Your task to perform on an android device: turn off data saver in the chrome app Image 0: 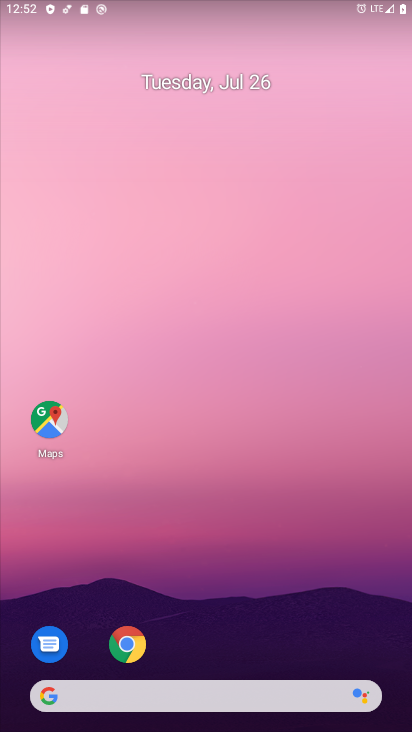
Step 0: click (126, 644)
Your task to perform on an android device: turn off data saver in the chrome app Image 1: 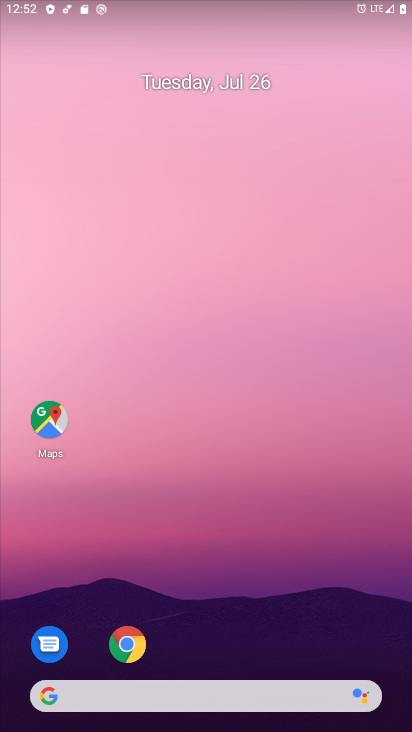
Step 1: click (126, 644)
Your task to perform on an android device: turn off data saver in the chrome app Image 2: 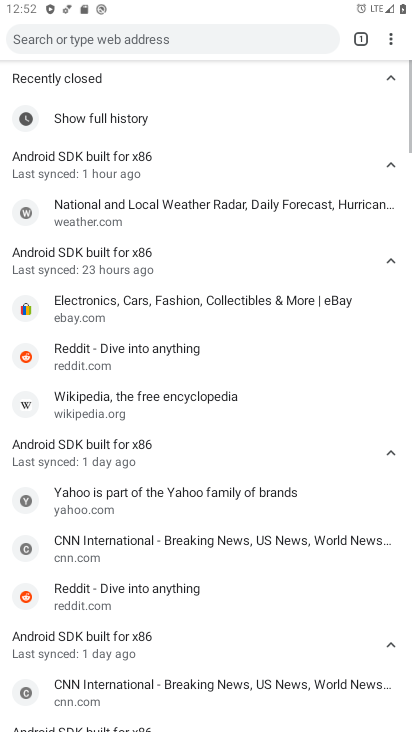
Step 2: click (389, 36)
Your task to perform on an android device: turn off data saver in the chrome app Image 3: 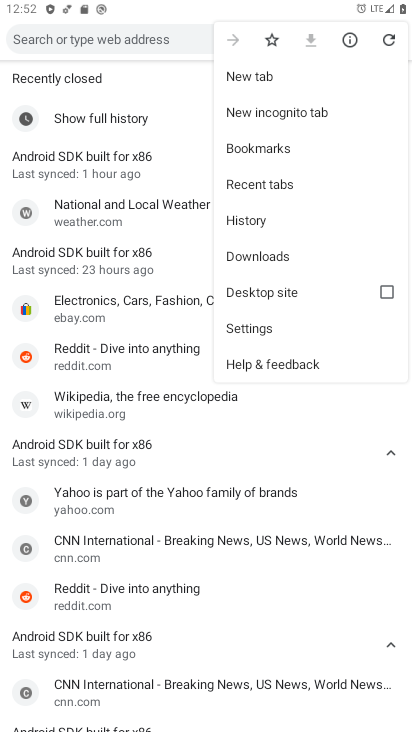
Step 3: click (280, 331)
Your task to perform on an android device: turn off data saver in the chrome app Image 4: 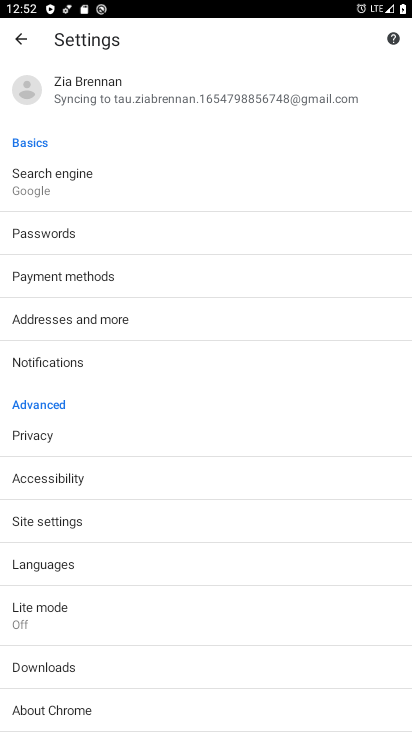
Step 4: click (76, 623)
Your task to perform on an android device: turn off data saver in the chrome app Image 5: 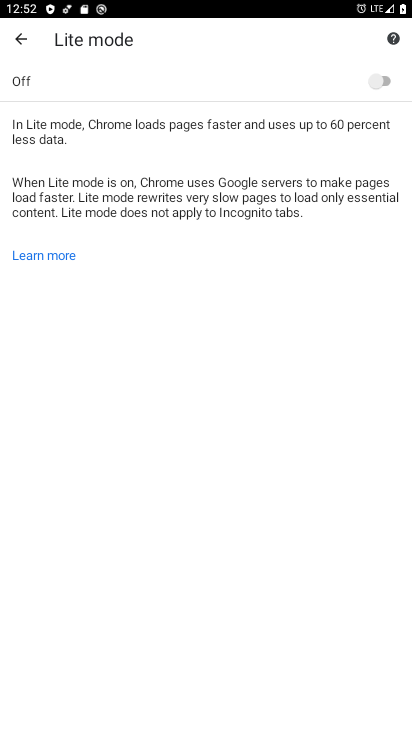
Step 5: task complete